Your task to perform on an android device: turn on translation in the chrome app Image 0: 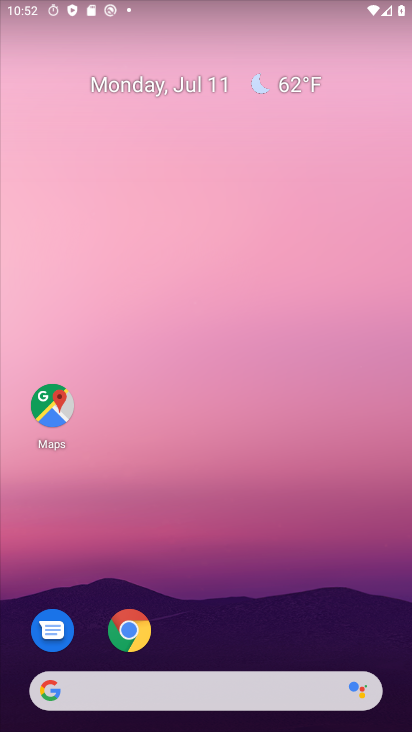
Step 0: drag from (323, 578) to (345, 0)
Your task to perform on an android device: turn on translation in the chrome app Image 1: 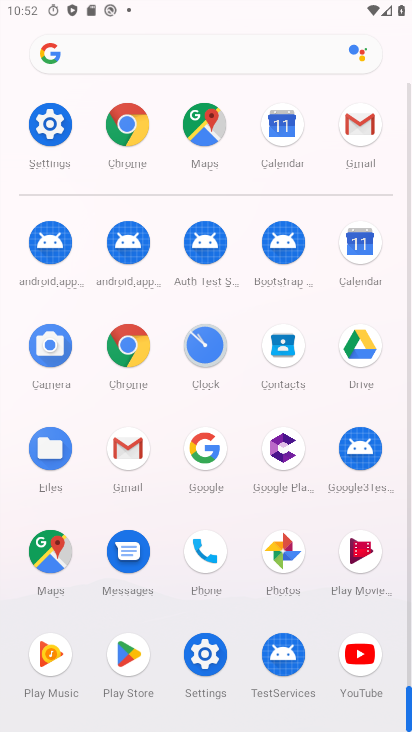
Step 1: click (122, 351)
Your task to perform on an android device: turn on translation in the chrome app Image 2: 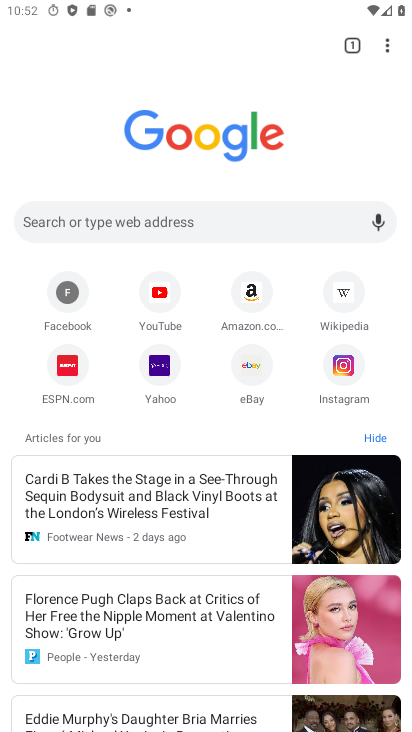
Step 2: click (385, 41)
Your task to perform on an android device: turn on translation in the chrome app Image 3: 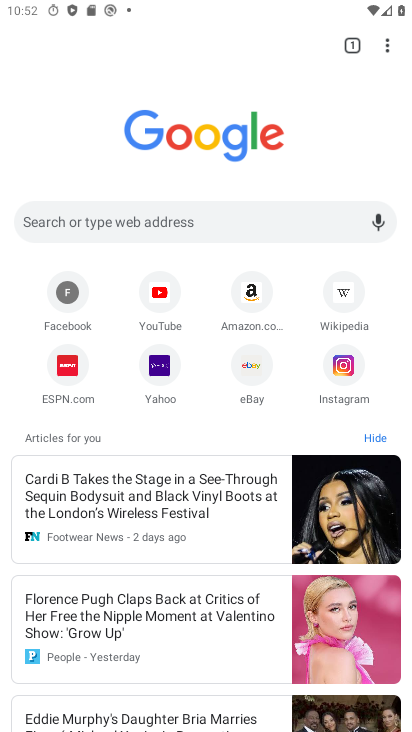
Step 3: drag from (389, 40) to (258, 389)
Your task to perform on an android device: turn on translation in the chrome app Image 4: 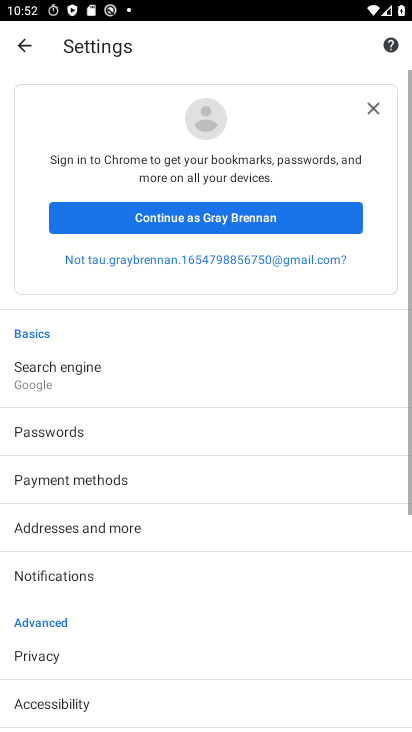
Step 4: drag from (84, 705) to (102, 245)
Your task to perform on an android device: turn on translation in the chrome app Image 5: 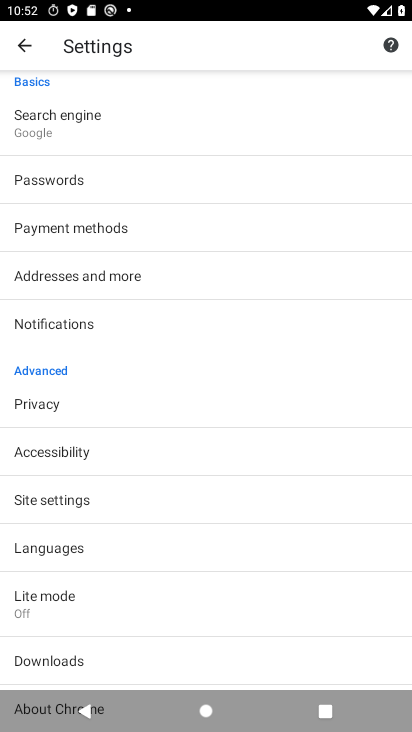
Step 5: click (113, 557)
Your task to perform on an android device: turn on translation in the chrome app Image 6: 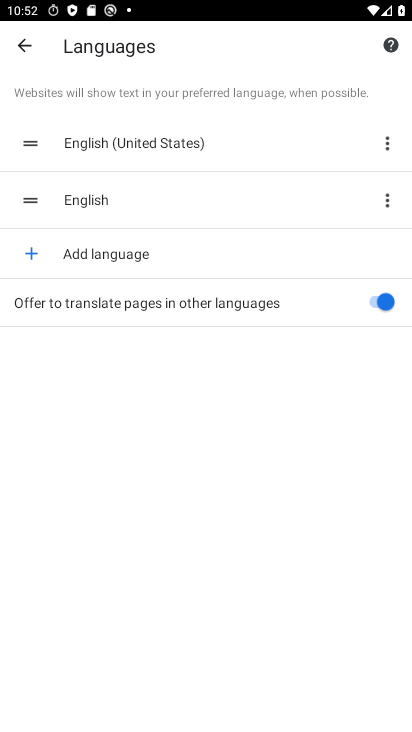
Step 6: task complete